Your task to perform on an android device: allow notifications from all sites in the chrome app Image 0: 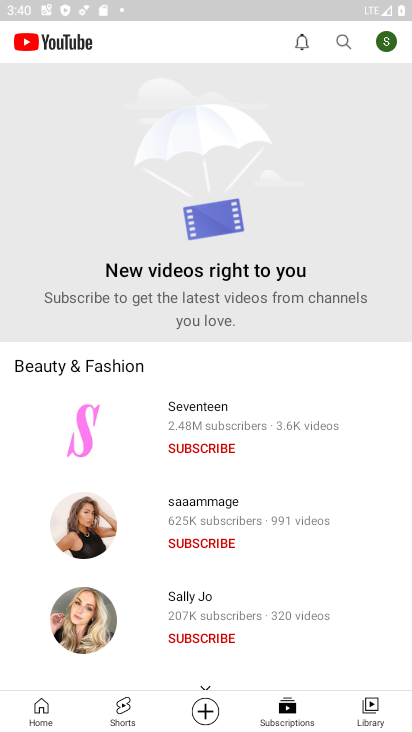
Step 0: press home button
Your task to perform on an android device: allow notifications from all sites in the chrome app Image 1: 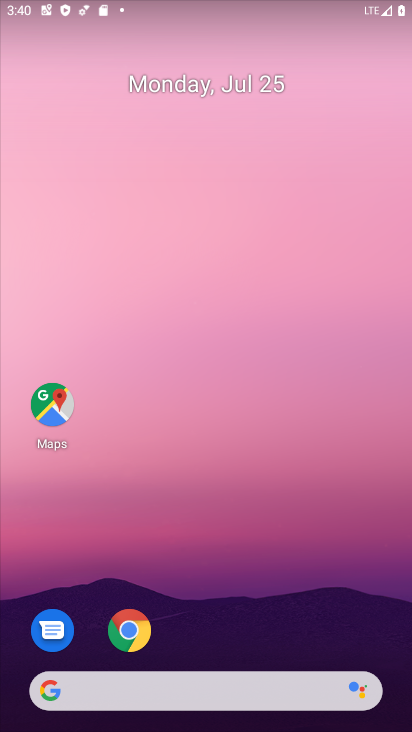
Step 1: click (140, 628)
Your task to perform on an android device: allow notifications from all sites in the chrome app Image 2: 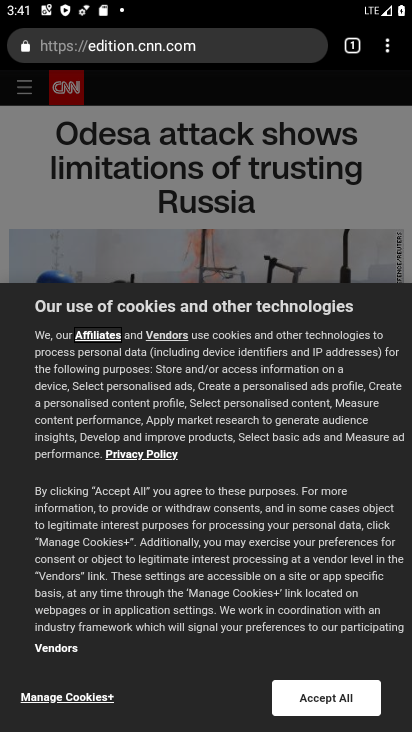
Step 2: click (386, 47)
Your task to perform on an android device: allow notifications from all sites in the chrome app Image 3: 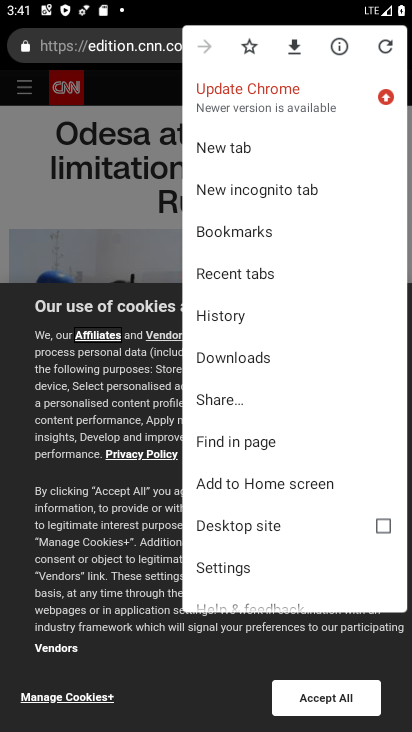
Step 3: click (226, 565)
Your task to perform on an android device: allow notifications from all sites in the chrome app Image 4: 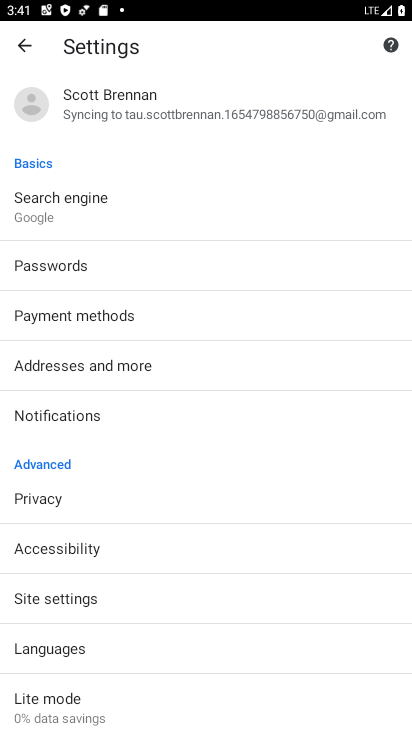
Step 4: click (67, 426)
Your task to perform on an android device: allow notifications from all sites in the chrome app Image 5: 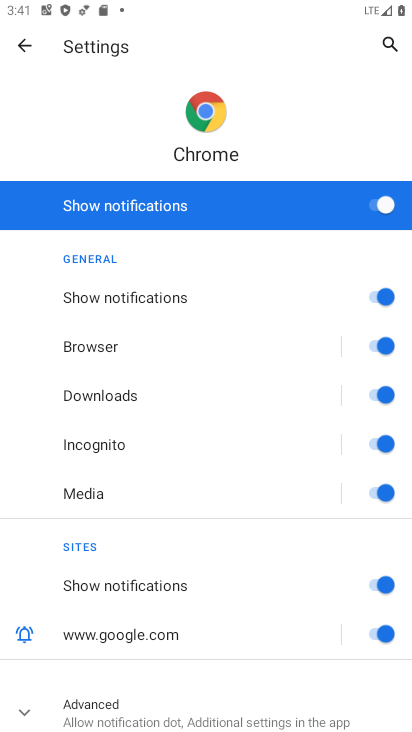
Step 5: task complete